Your task to perform on an android device: Do I have any events tomorrow? Image 0: 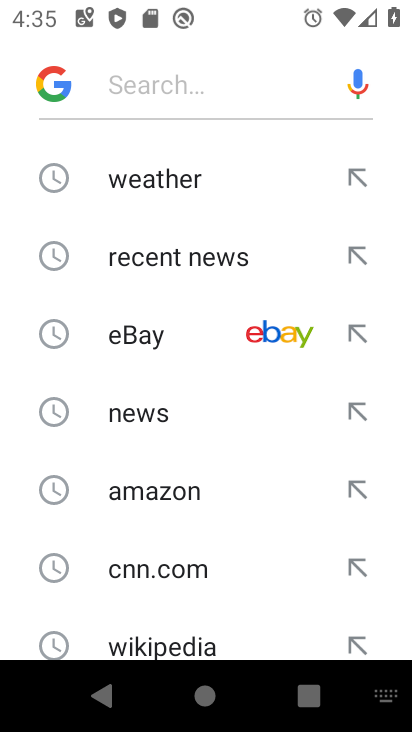
Step 0: press home button
Your task to perform on an android device: Do I have any events tomorrow? Image 1: 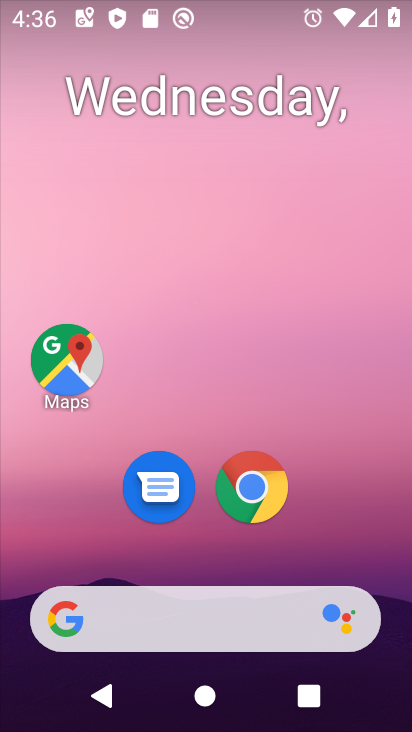
Step 1: drag from (203, 566) to (219, 0)
Your task to perform on an android device: Do I have any events tomorrow? Image 2: 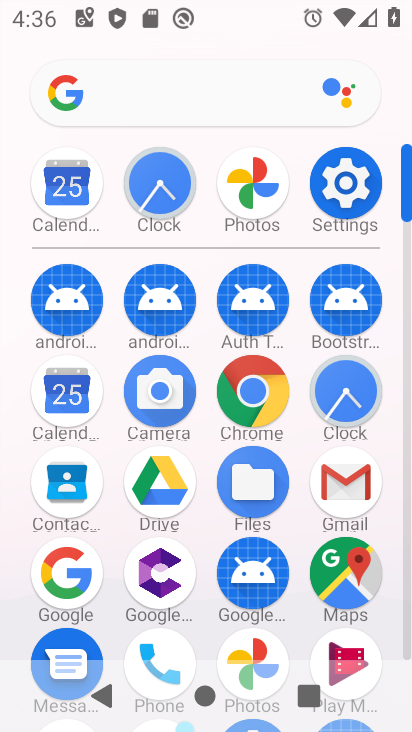
Step 2: click (64, 393)
Your task to perform on an android device: Do I have any events tomorrow? Image 3: 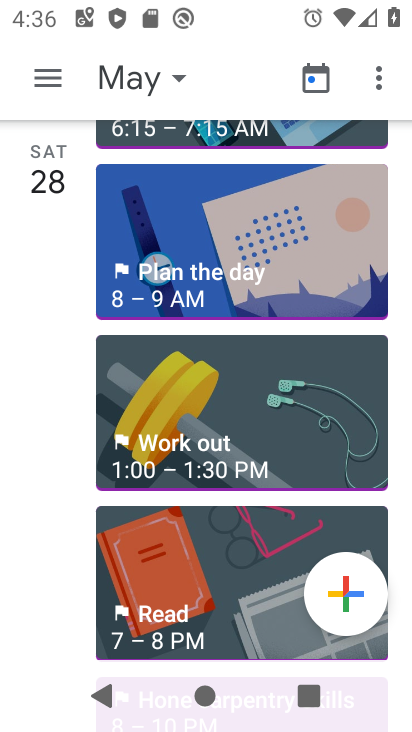
Step 3: click (44, 74)
Your task to perform on an android device: Do I have any events tomorrow? Image 4: 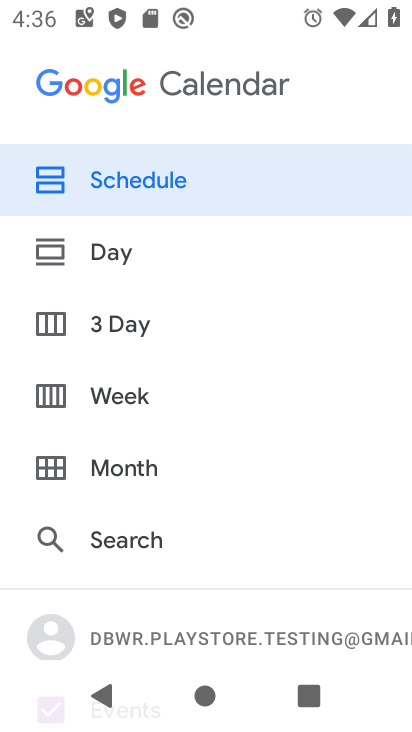
Step 4: click (102, 257)
Your task to perform on an android device: Do I have any events tomorrow? Image 5: 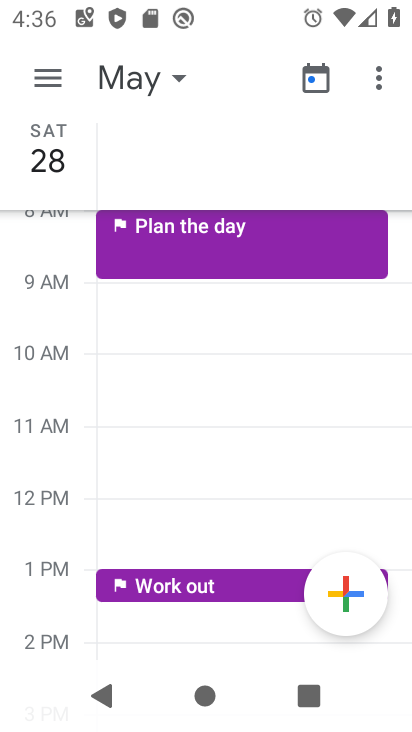
Step 5: click (176, 79)
Your task to perform on an android device: Do I have any events tomorrow? Image 6: 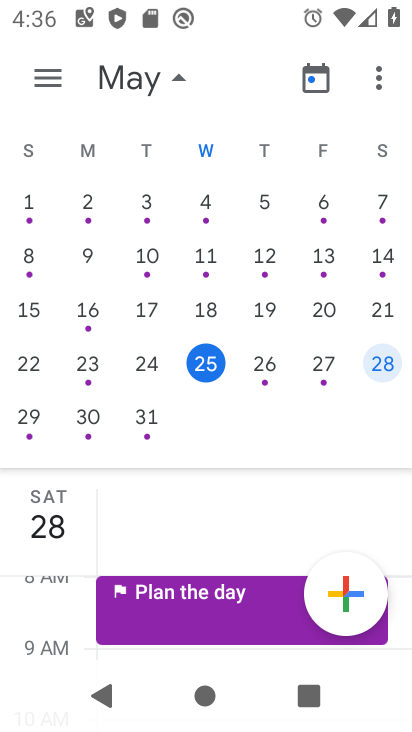
Step 6: click (269, 368)
Your task to perform on an android device: Do I have any events tomorrow? Image 7: 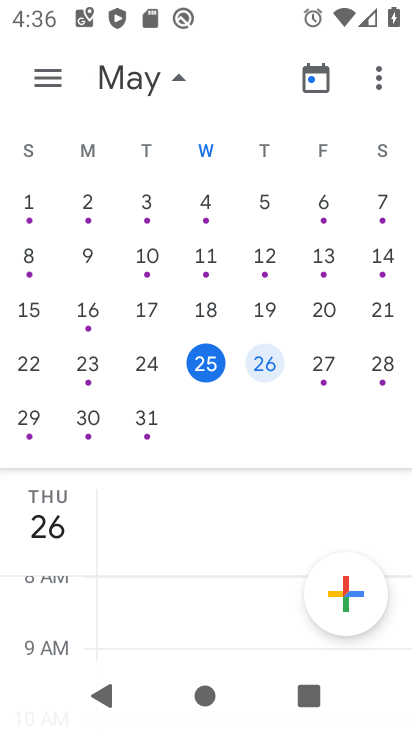
Step 7: click (177, 79)
Your task to perform on an android device: Do I have any events tomorrow? Image 8: 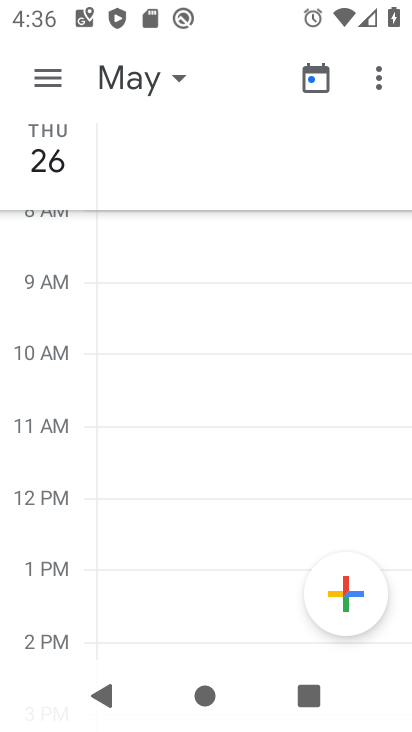
Step 8: task complete